Your task to perform on an android device: Open settings Image 0: 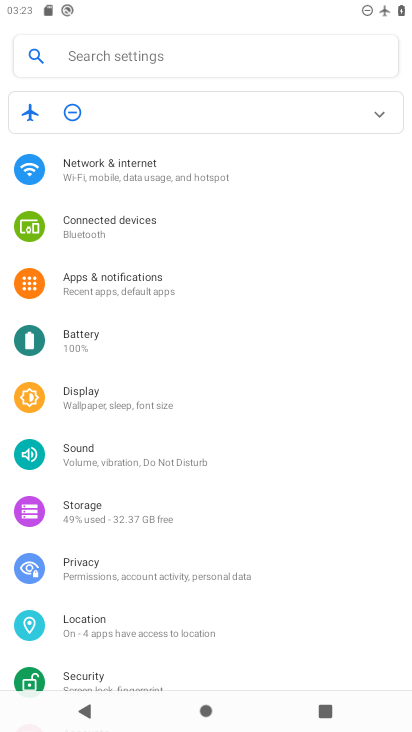
Step 0: press home button
Your task to perform on an android device: Open settings Image 1: 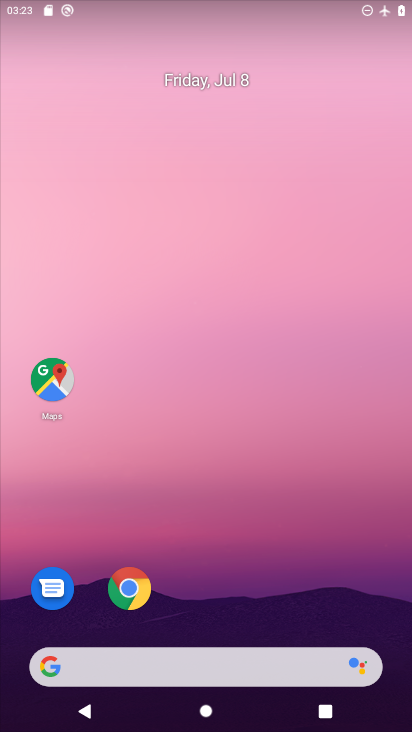
Step 1: drag from (229, 614) to (189, 47)
Your task to perform on an android device: Open settings Image 2: 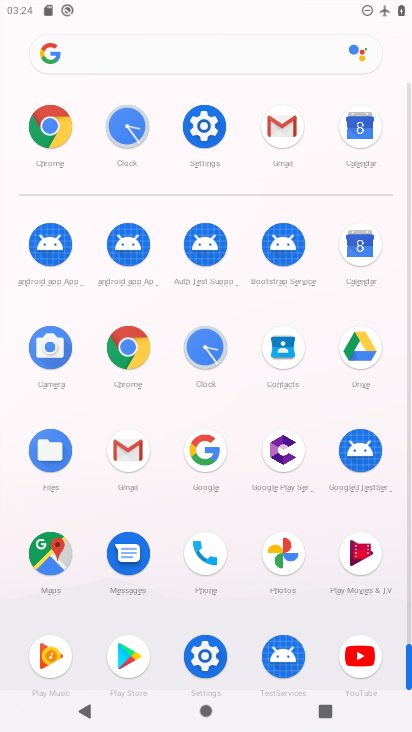
Step 2: click (190, 141)
Your task to perform on an android device: Open settings Image 3: 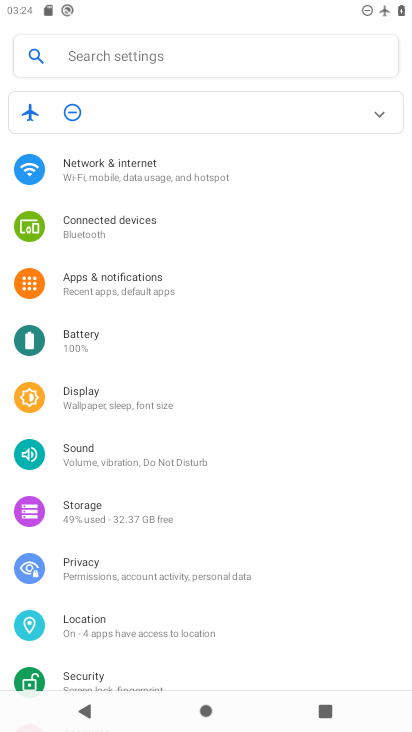
Step 3: task complete